Your task to perform on an android device: move a message to another label in the gmail app Image 0: 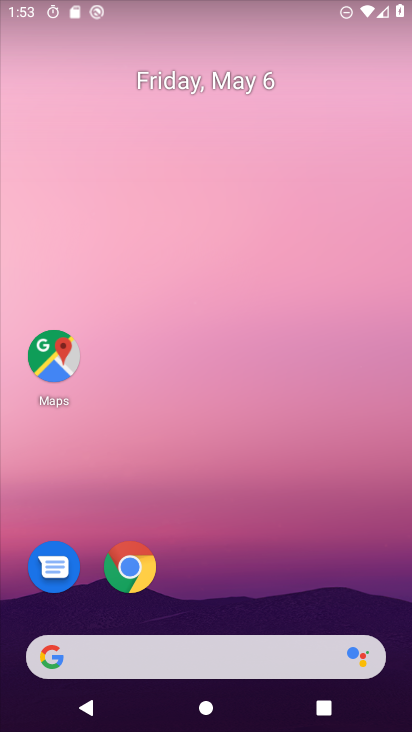
Step 0: drag from (326, 607) to (334, 0)
Your task to perform on an android device: move a message to another label in the gmail app Image 1: 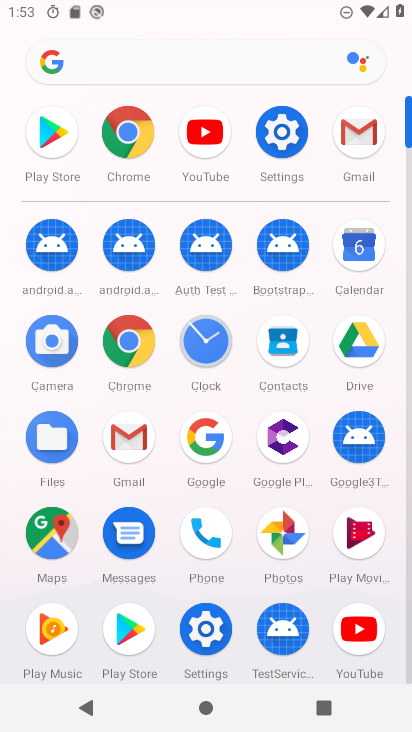
Step 1: click (353, 139)
Your task to perform on an android device: move a message to another label in the gmail app Image 2: 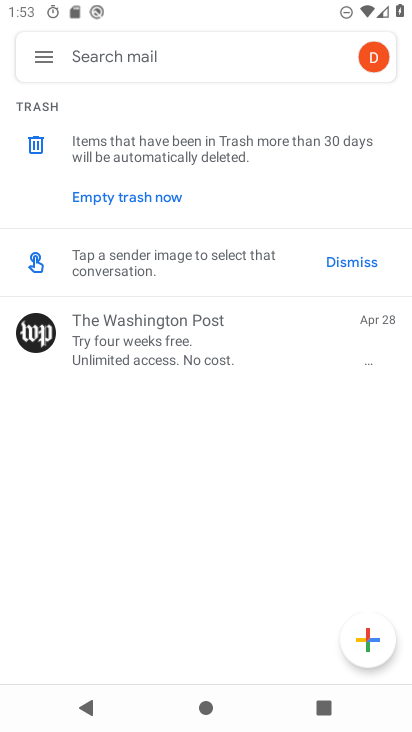
Step 2: click (39, 56)
Your task to perform on an android device: move a message to another label in the gmail app Image 3: 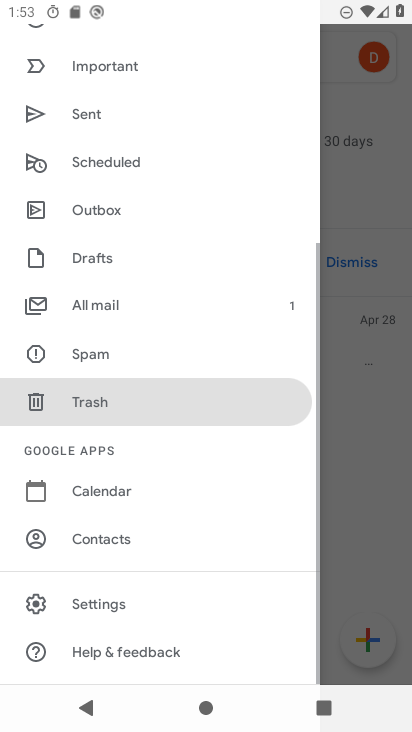
Step 3: click (93, 306)
Your task to perform on an android device: move a message to another label in the gmail app Image 4: 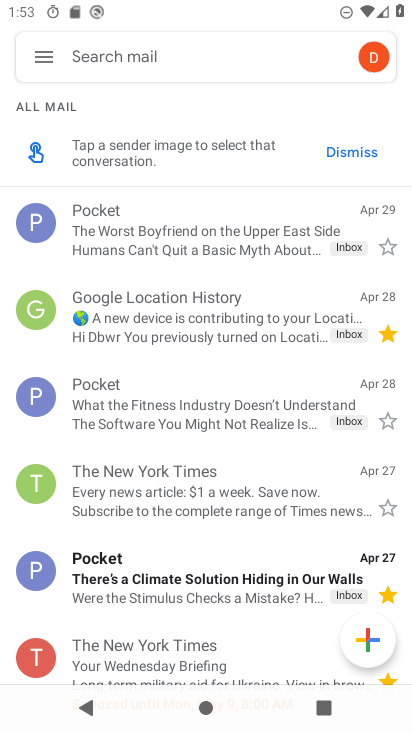
Step 4: click (179, 489)
Your task to perform on an android device: move a message to another label in the gmail app Image 5: 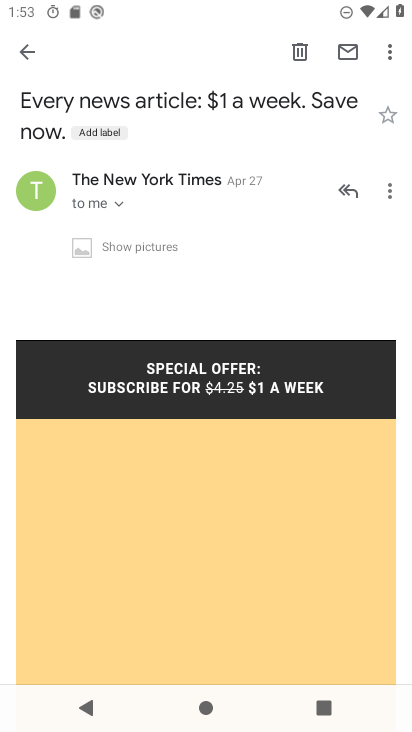
Step 5: click (90, 136)
Your task to perform on an android device: move a message to another label in the gmail app Image 6: 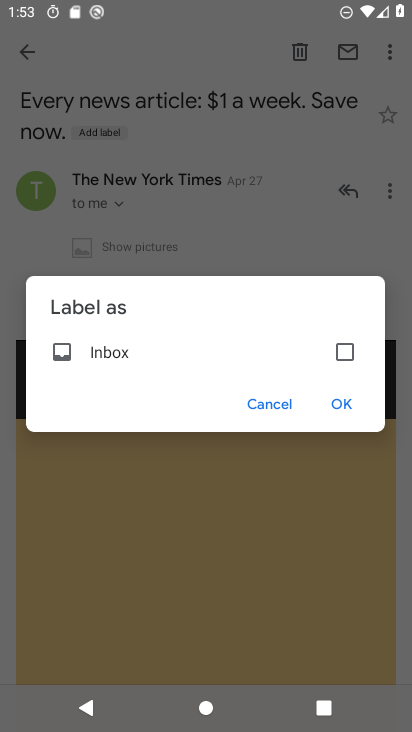
Step 6: click (346, 353)
Your task to perform on an android device: move a message to another label in the gmail app Image 7: 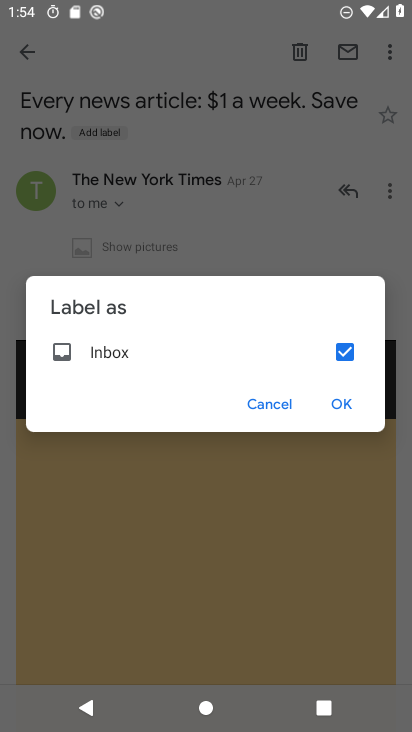
Step 7: click (286, 403)
Your task to perform on an android device: move a message to another label in the gmail app Image 8: 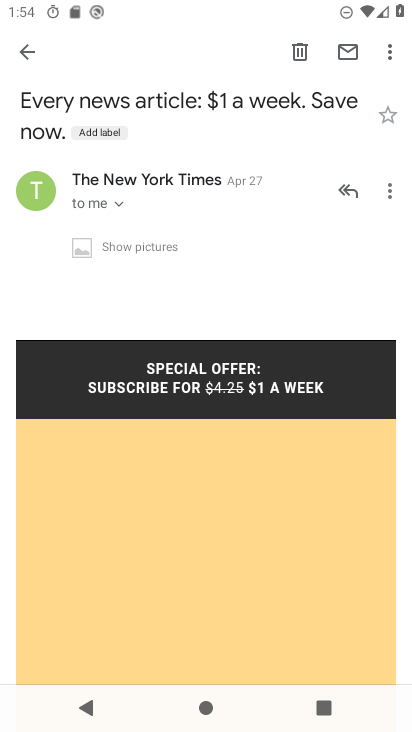
Step 8: click (389, 50)
Your task to perform on an android device: move a message to another label in the gmail app Image 9: 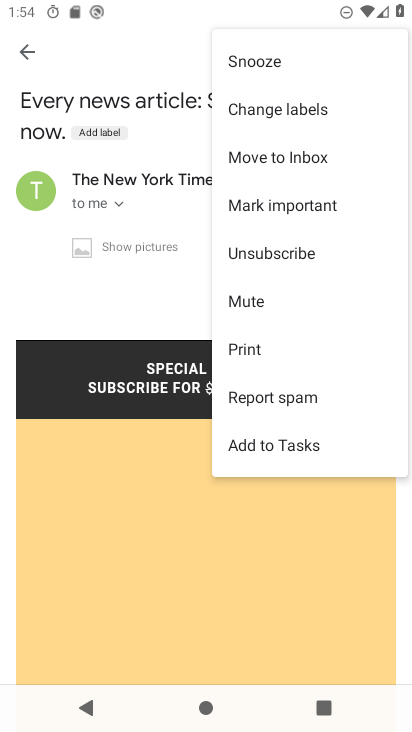
Step 9: click (293, 158)
Your task to perform on an android device: move a message to another label in the gmail app Image 10: 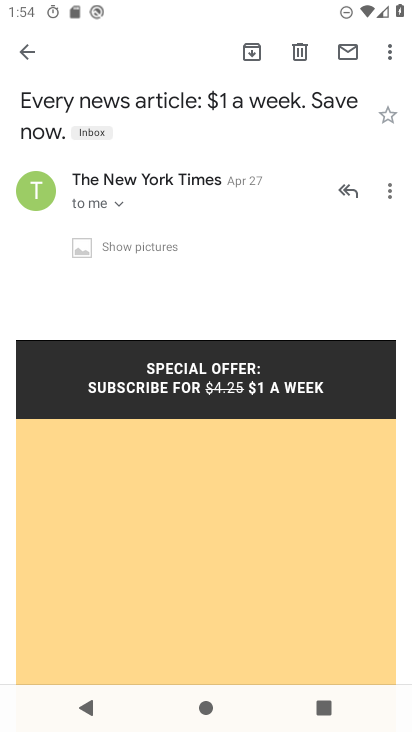
Step 10: task complete